Your task to perform on an android device: turn on airplane mode Image 0: 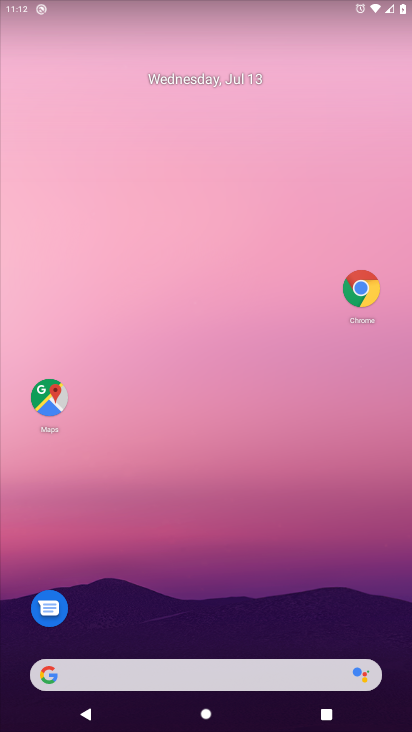
Step 0: drag from (89, 524) to (178, 169)
Your task to perform on an android device: turn on airplane mode Image 1: 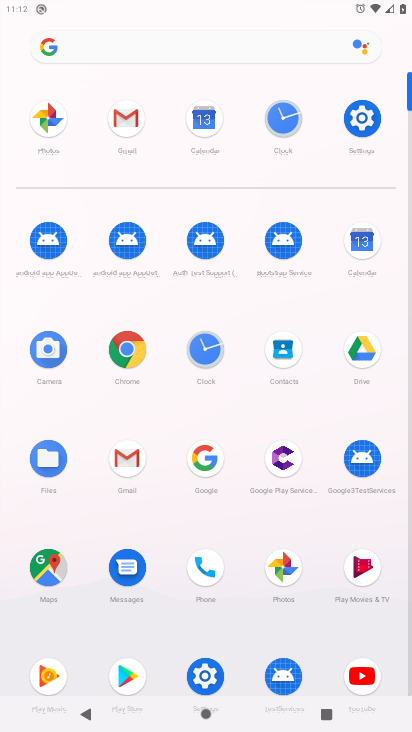
Step 1: click (290, 570)
Your task to perform on an android device: turn on airplane mode Image 2: 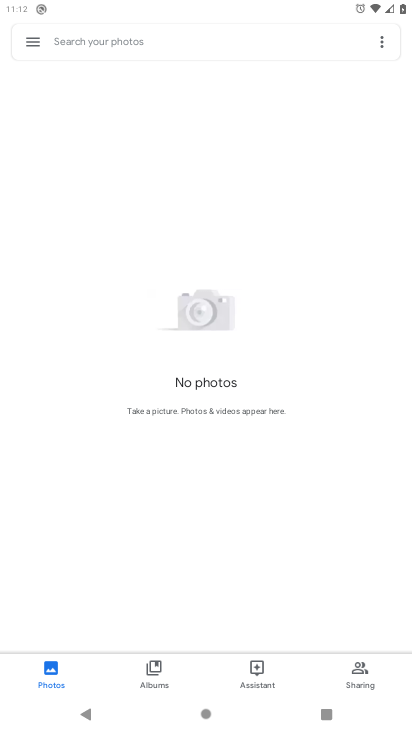
Step 2: press home button
Your task to perform on an android device: turn on airplane mode Image 3: 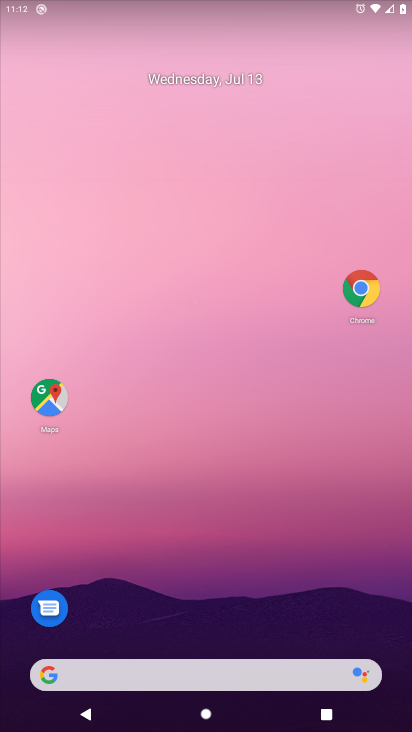
Step 3: drag from (14, 709) to (269, 26)
Your task to perform on an android device: turn on airplane mode Image 4: 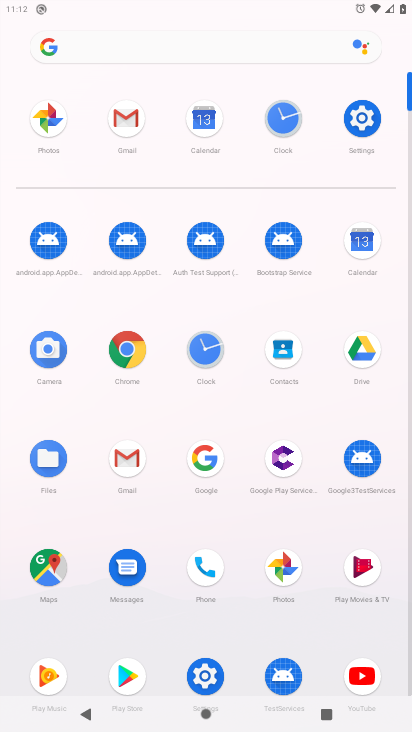
Step 4: click (196, 665)
Your task to perform on an android device: turn on airplane mode Image 5: 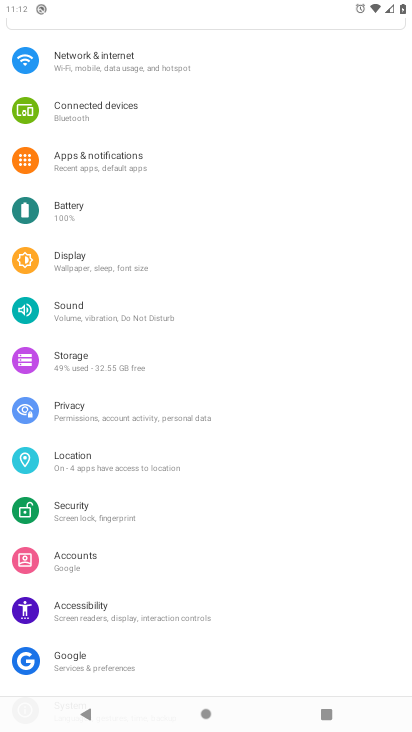
Step 5: click (139, 64)
Your task to perform on an android device: turn on airplane mode Image 6: 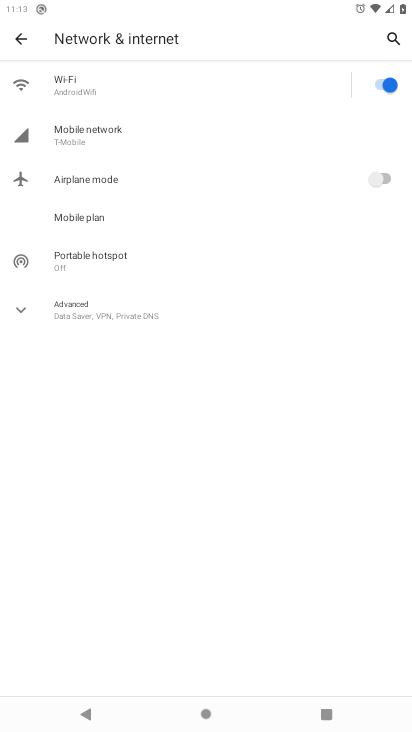
Step 6: click (375, 177)
Your task to perform on an android device: turn on airplane mode Image 7: 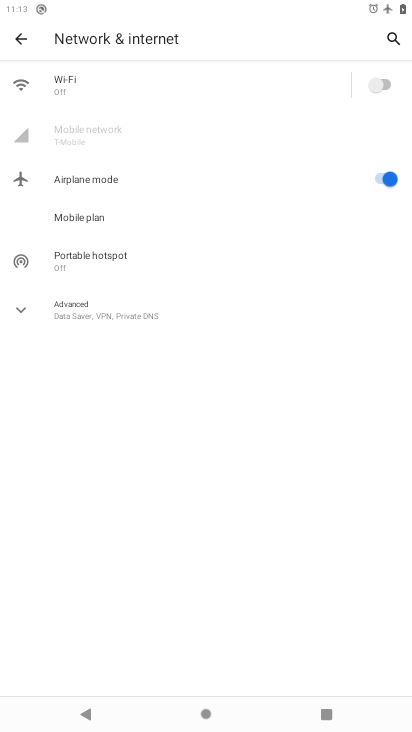
Step 7: task complete